Your task to perform on an android device: change the upload size in google photos Image 0: 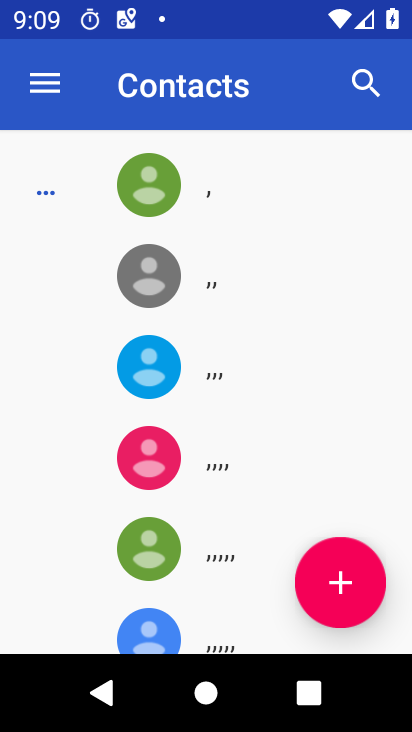
Step 0: press home button
Your task to perform on an android device: change the upload size in google photos Image 1: 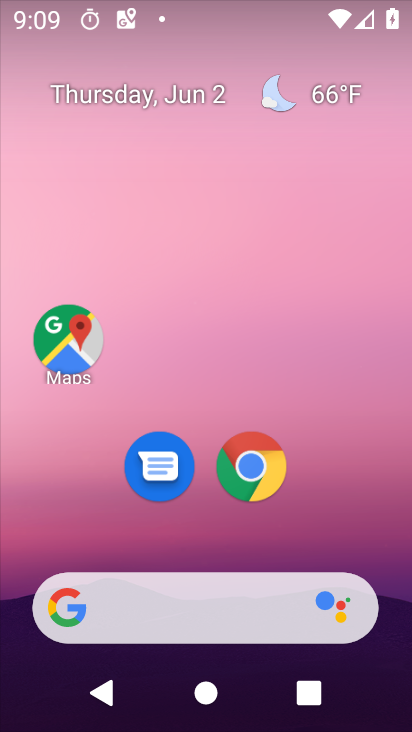
Step 1: drag from (24, 639) to (246, 144)
Your task to perform on an android device: change the upload size in google photos Image 2: 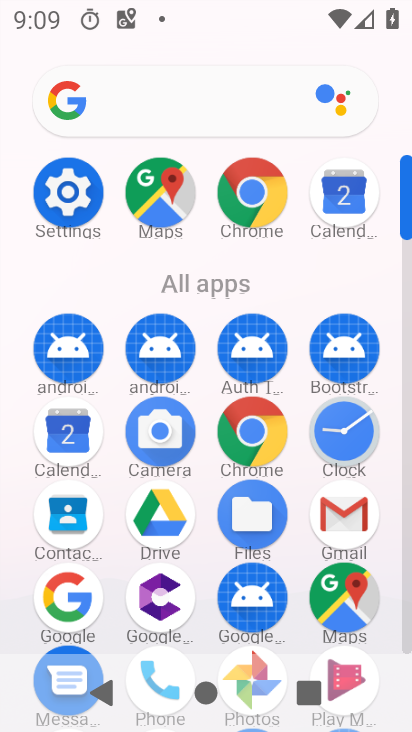
Step 2: click (241, 650)
Your task to perform on an android device: change the upload size in google photos Image 3: 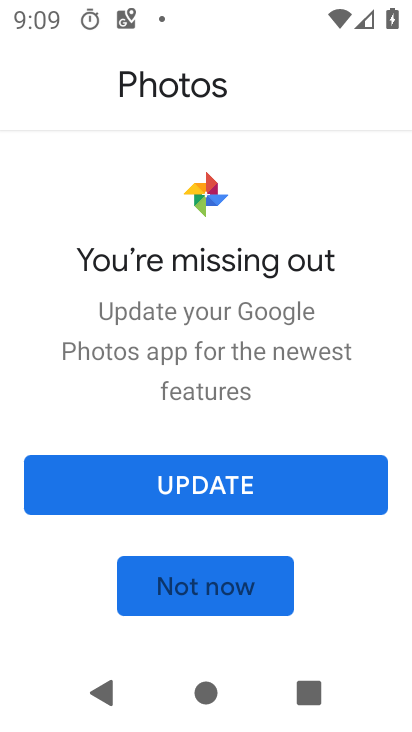
Step 3: click (184, 597)
Your task to perform on an android device: change the upload size in google photos Image 4: 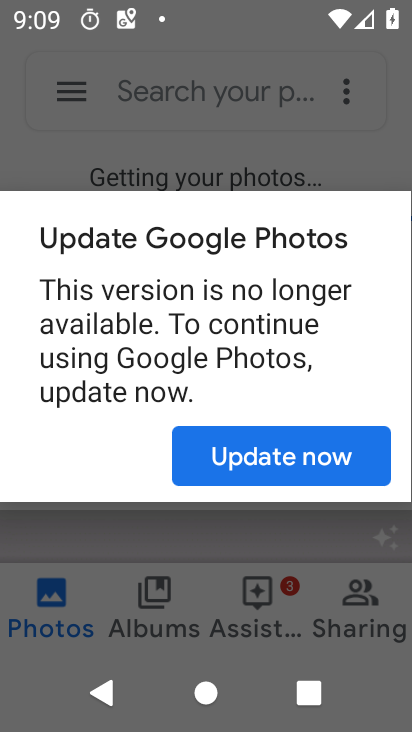
Step 4: click (209, 458)
Your task to perform on an android device: change the upload size in google photos Image 5: 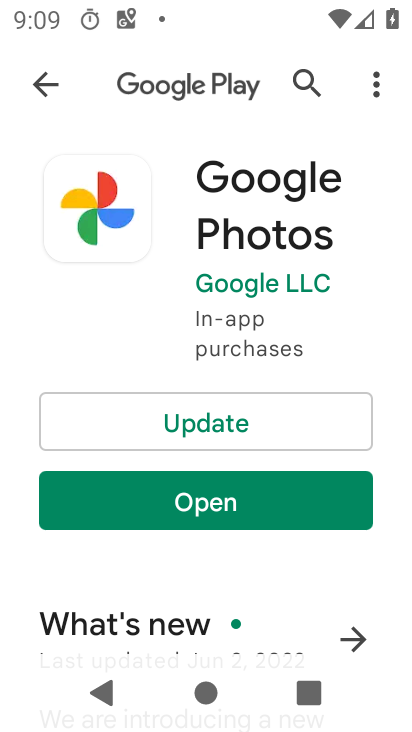
Step 5: click (201, 486)
Your task to perform on an android device: change the upload size in google photos Image 6: 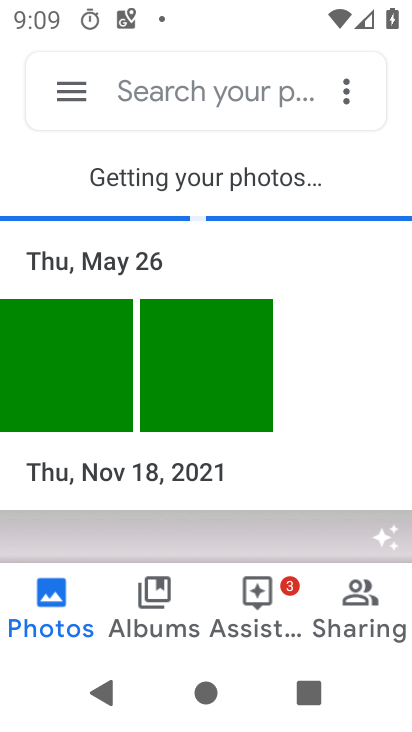
Step 6: click (81, 93)
Your task to perform on an android device: change the upload size in google photos Image 7: 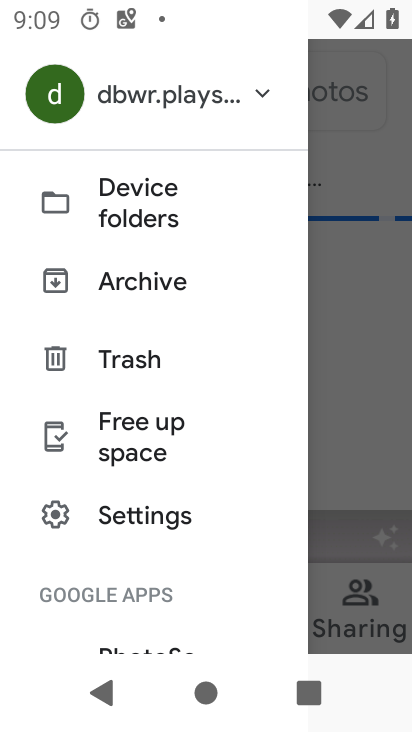
Step 7: click (105, 518)
Your task to perform on an android device: change the upload size in google photos Image 8: 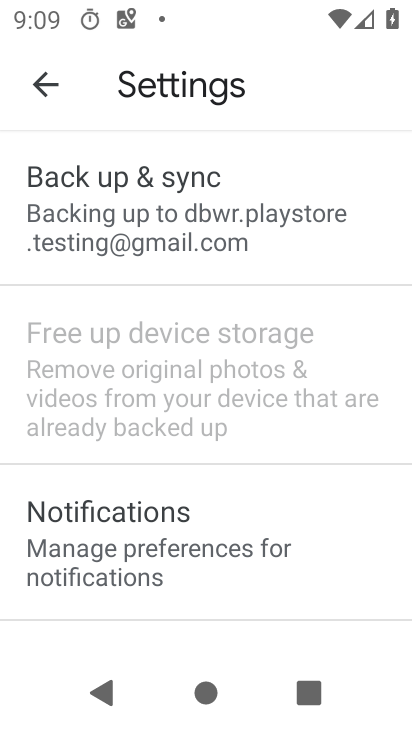
Step 8: click (192, 219)
Your task to perform on an android device: change the upload size in google photos Image 9: 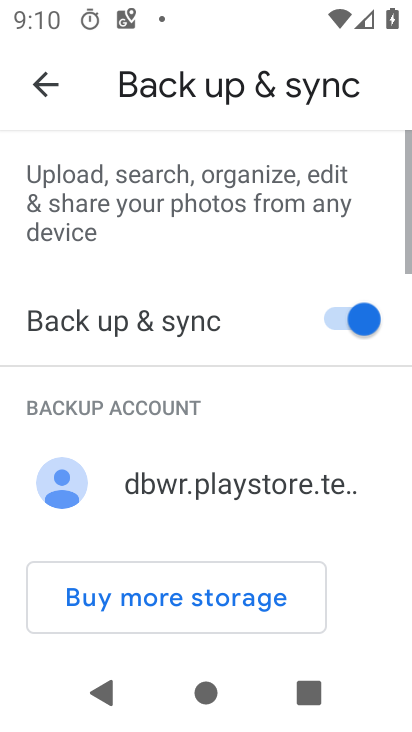
Step 9: drag from (0, 452) to (304, 199)
Your task to perform on an android device: change the upload size in google photos Image 10: 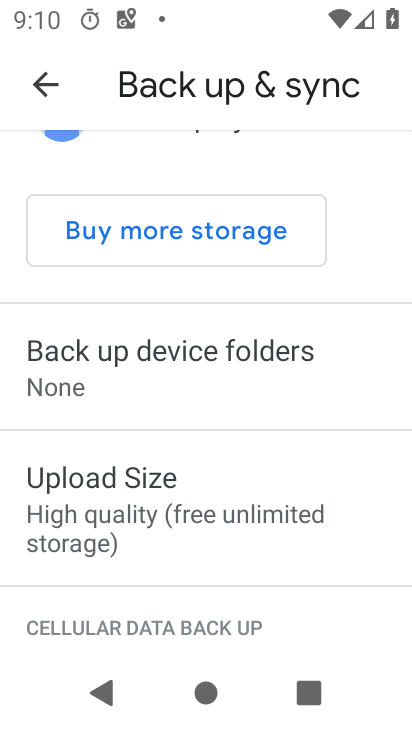
Step 10: click (125, 531)
Your task to perform on an android device: change the upload size in google photos Image 11: 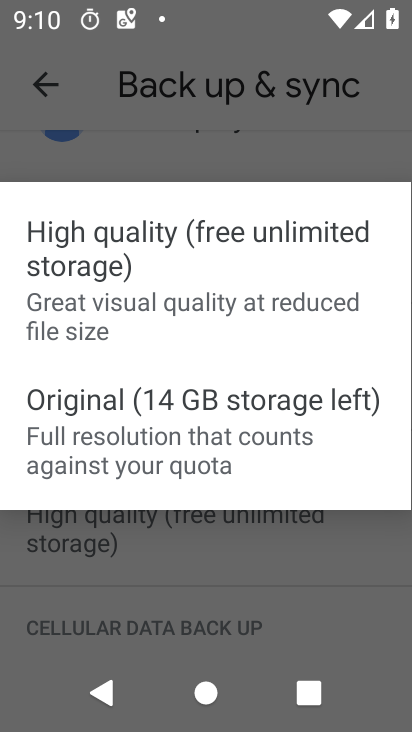
Step 11: click (138, 470)
Your task to perform on an android device: change the upload size in google photos Image 12: 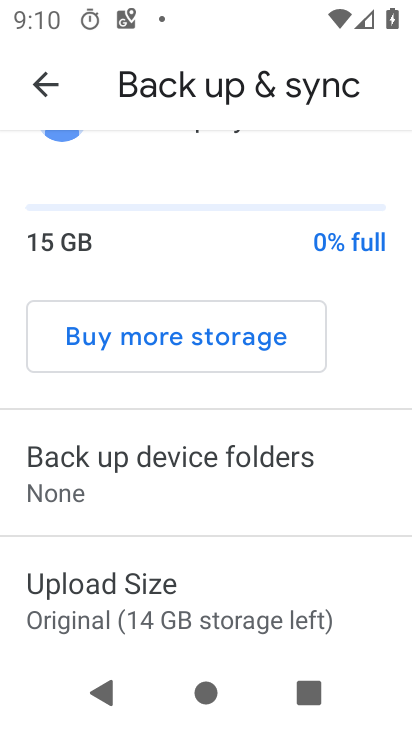
Step 12: task complete